Your task to perform on an android device: Go to internet settings Image 0: 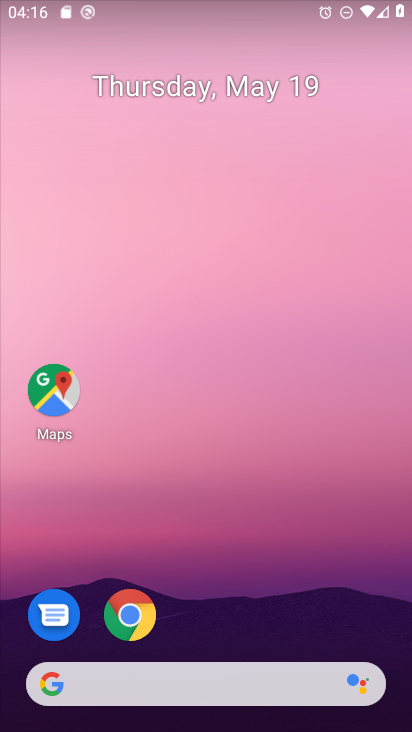
Step 0: drag from (292, 622) to (243, 152)
Your task to perform on an android device: Go to internet settings Image 1: 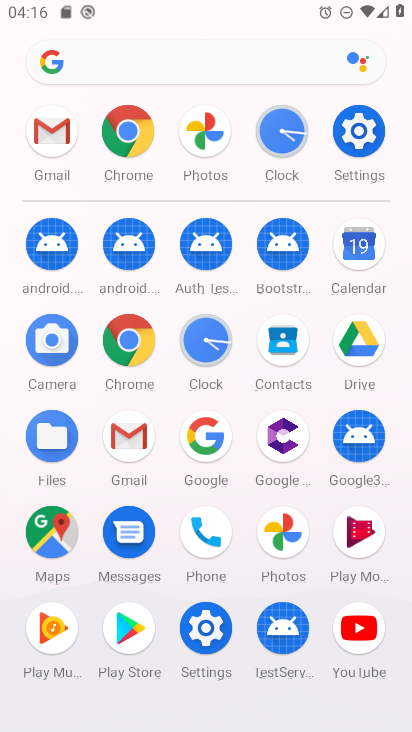
Step 1: click (348, 139)
Your task to perform on an android device: Go to internet settings Image 2: 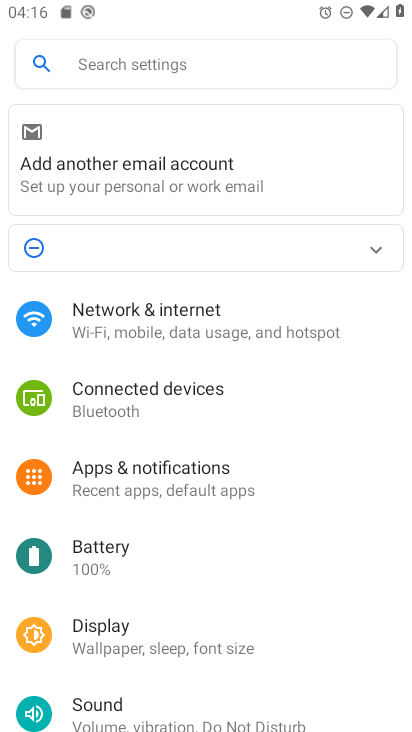
Step 2: click (270, 333)
Your task to perform on an android device: Go to internet settings Image 3: 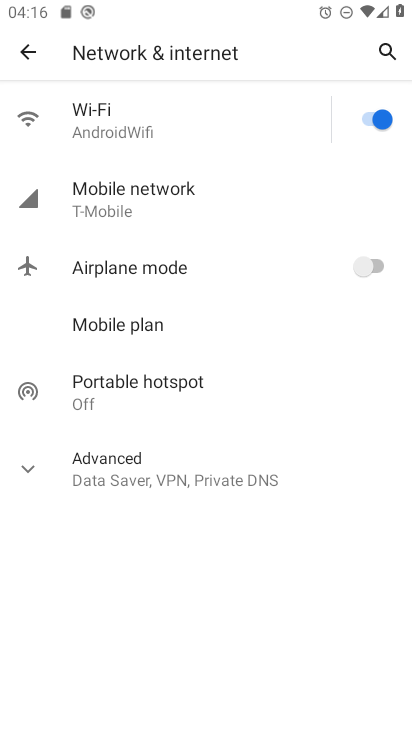
Step 3: task complete